Your task to perform on an android device: What's the weather? Image 0: 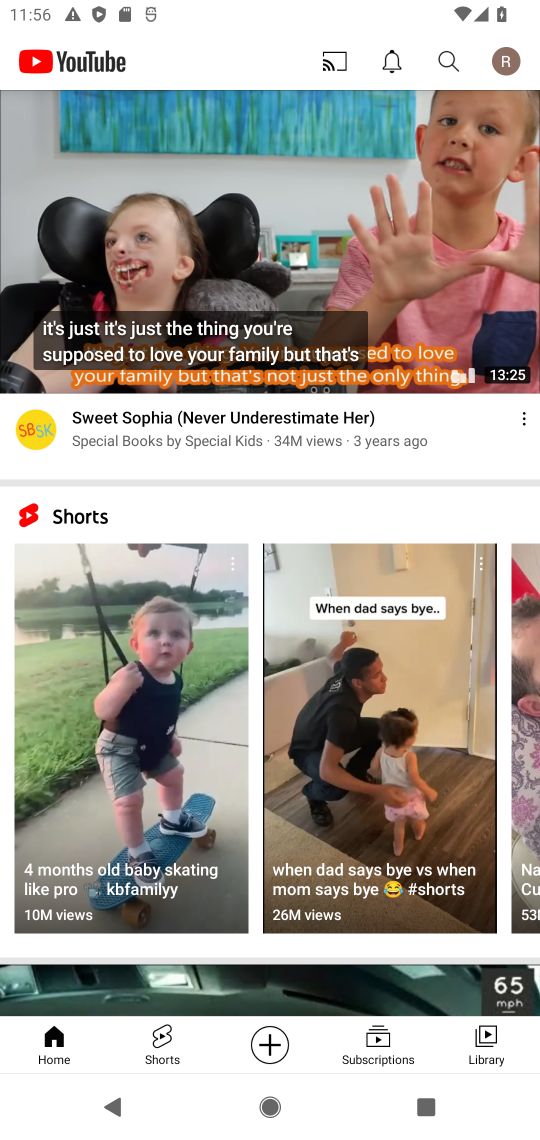
Step 0: press home button
Your task to perform on an android device: What's the weather? Image 1: 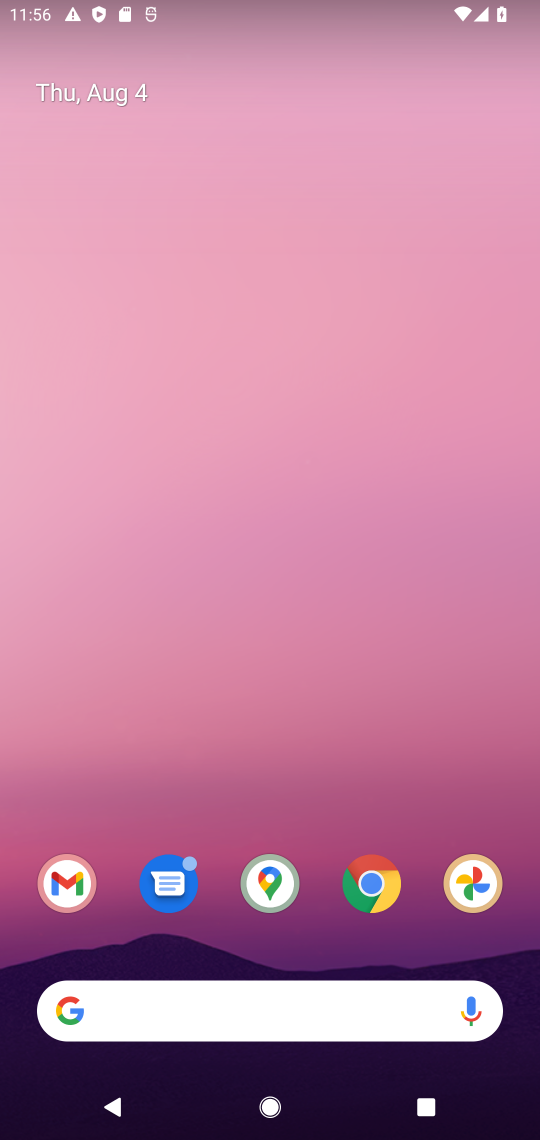
Step 1: drag from (328, 932) to (384, 15)
Your task to perform on an android device: What's the weather? Image 2: 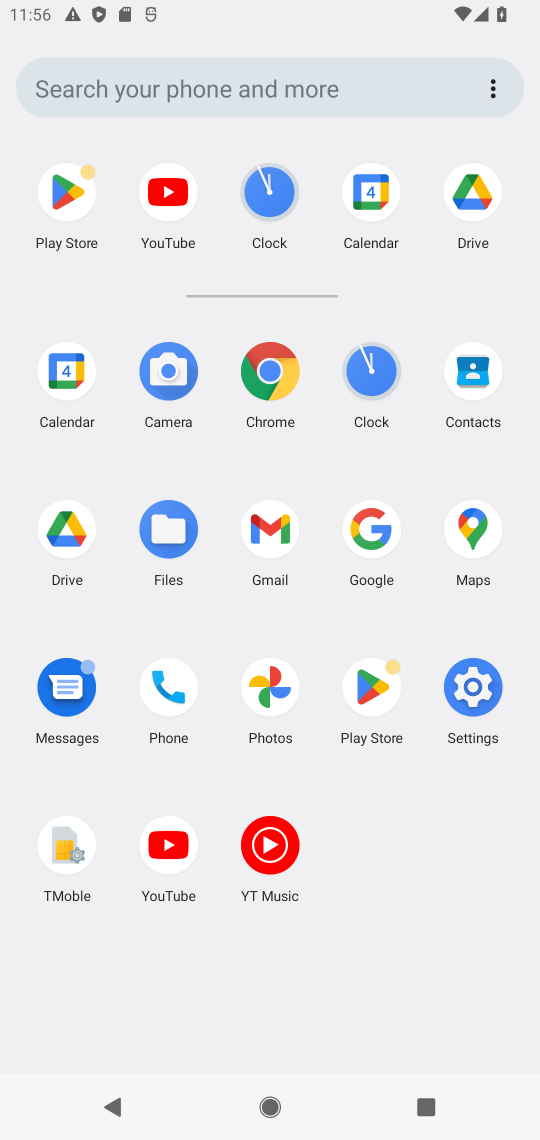
Step 2: click (306, 83)
Your task to perform on an android device: What's the weather? Image 3: 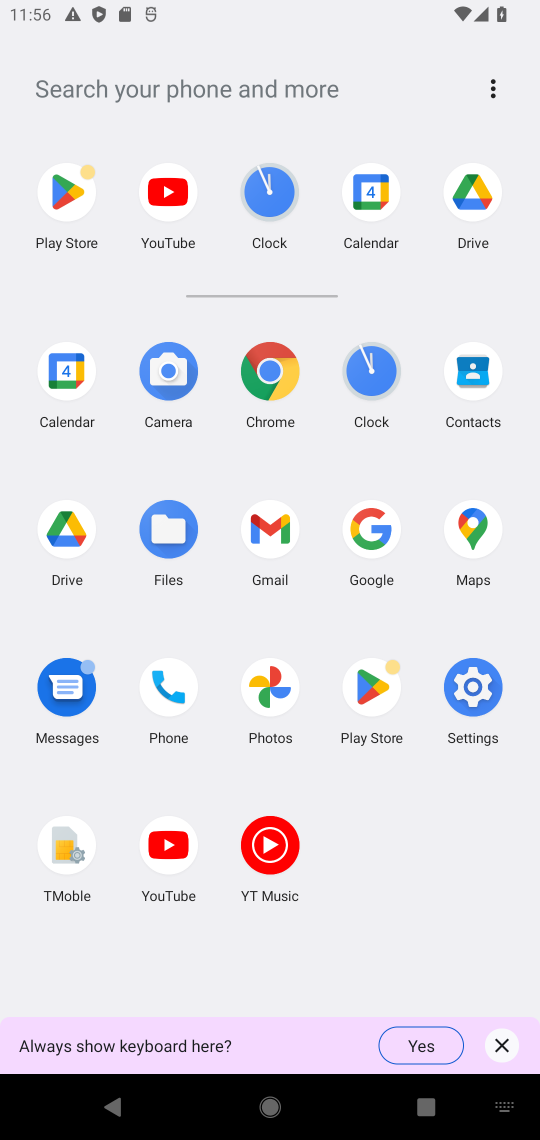
Step 3: click (154, 99)
Your task to perform on an android device: What's the weather? Image 4: 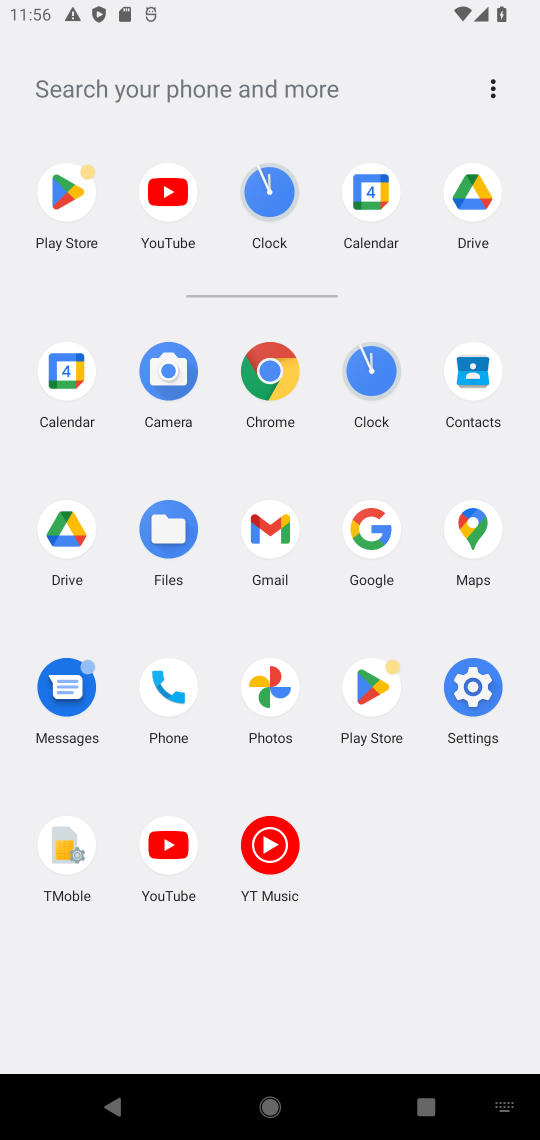
Step 4: click (252, 34)
Your task to perform on an android device: What's the weather? Image 5: 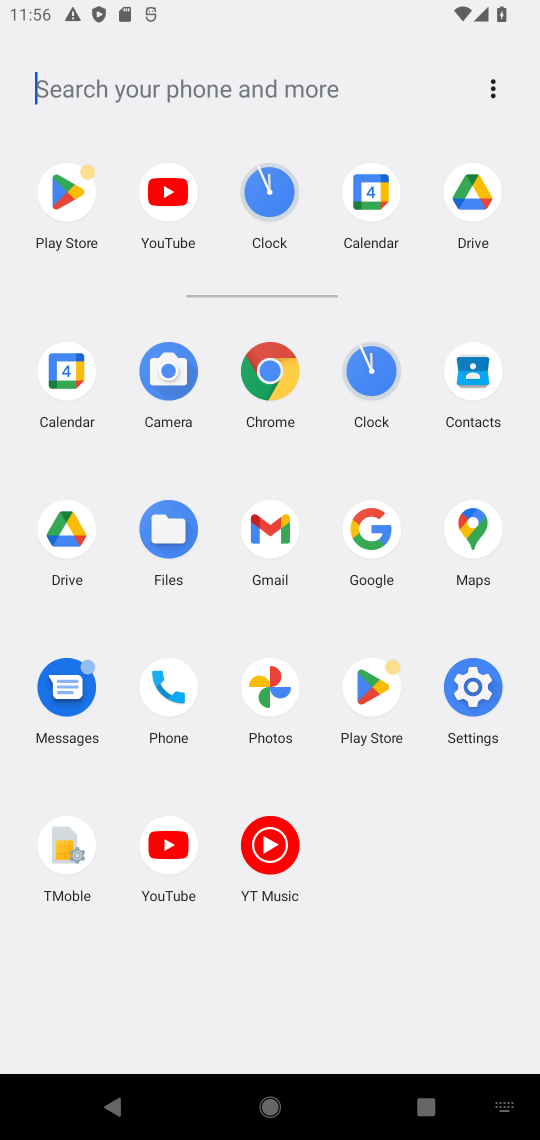
Step 5: click (229, 91)
Your task to perform on an android device: What's the weather? Image 6: 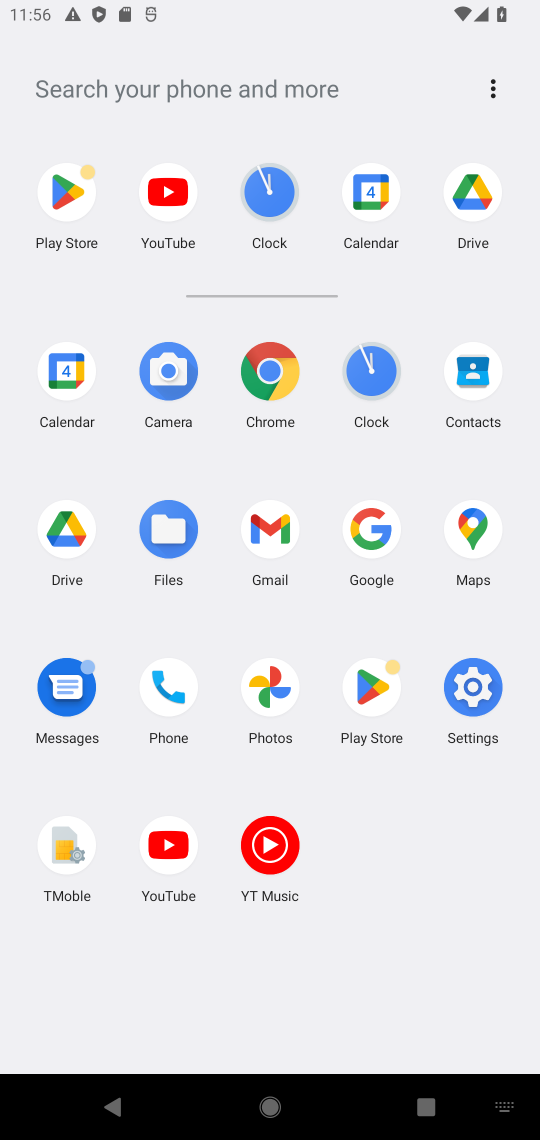
Step 6: click (229, 91)
Your task to perform on an android device: What's the weather? Image 7: 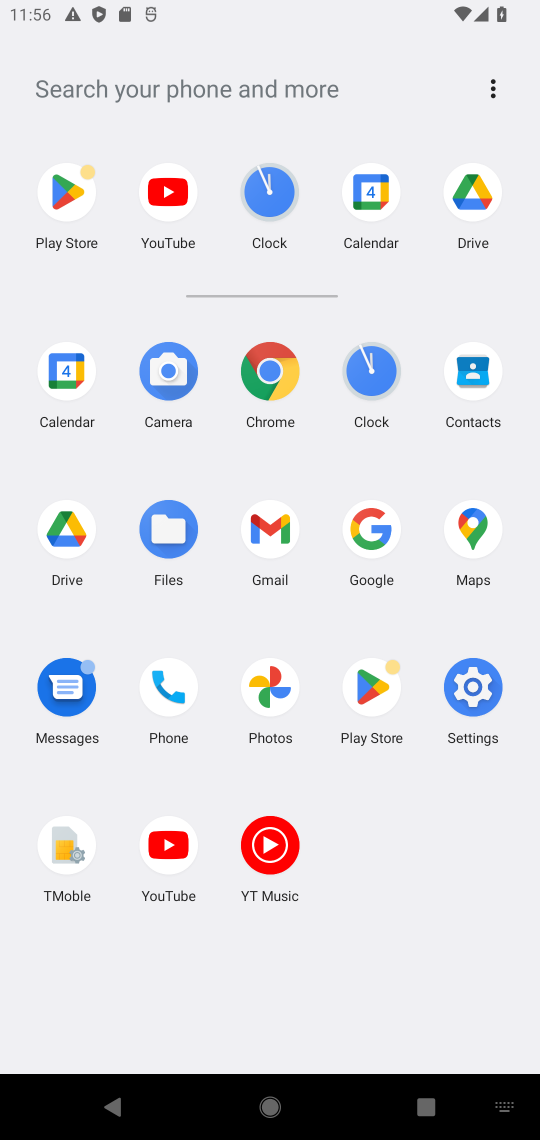
Step 7: type "weather"
Your task to perform on an android device: What's the weather? Image 8: 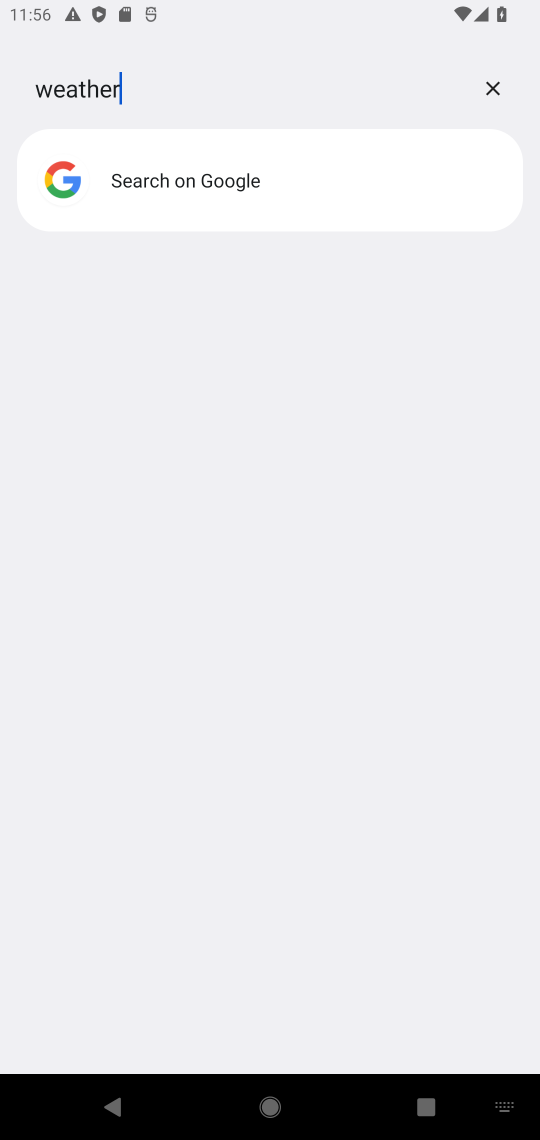
Step 8: type ""
Your task to perform on an android device: What's the weather? Image 9: 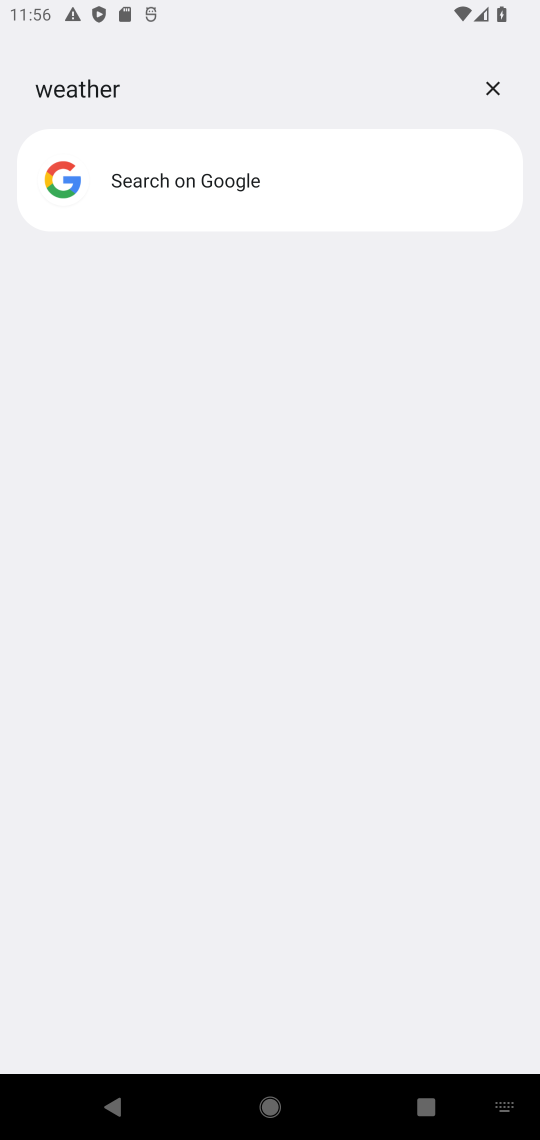
Step 9: click (255, 193)
Your task to perform on an android device: What's the weather? Image 10: 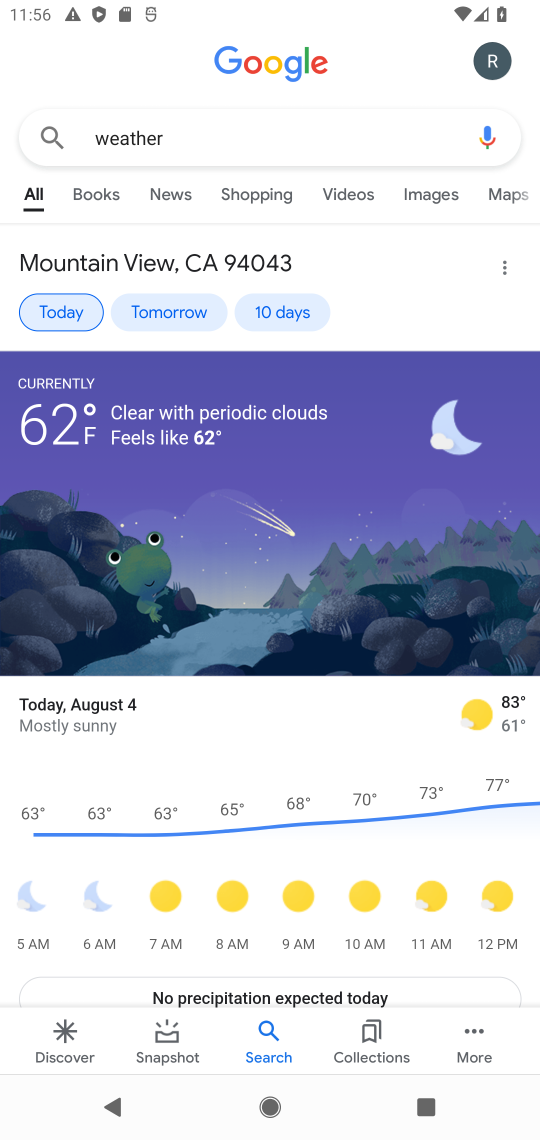
Step 10: task complete